Your task to perform on an android device: Search for Italian restaurants on Maps Image 0: 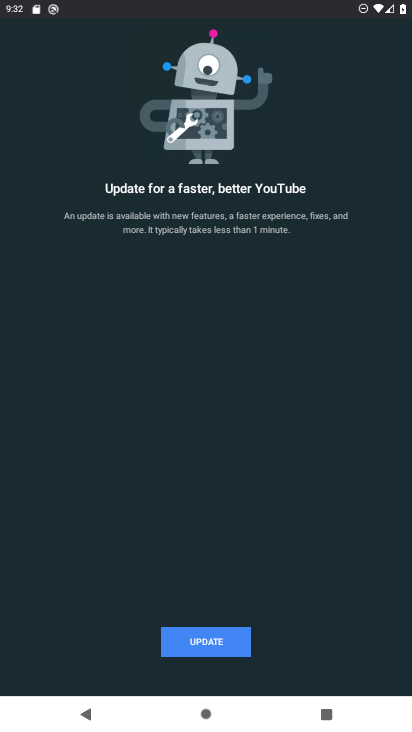
Step 0: press home button
Your task to perform on an android device: Search for Italian restaurants on Maps Image 1: 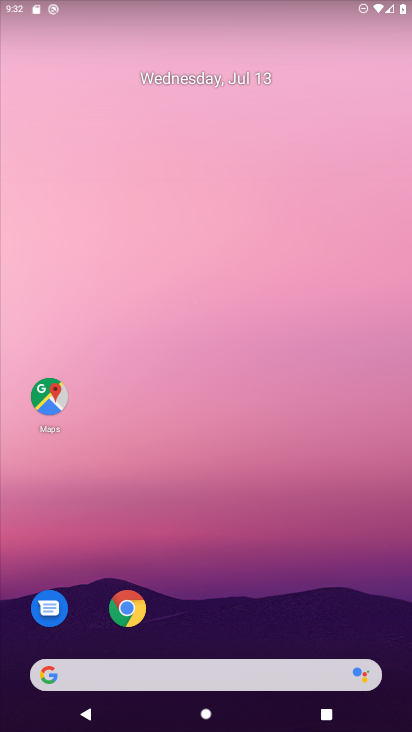
Step 1: drag from (239, 627) to (333, 90)
Your task to perform on an android device: Search for Italian restaurants on Maps Image 2: 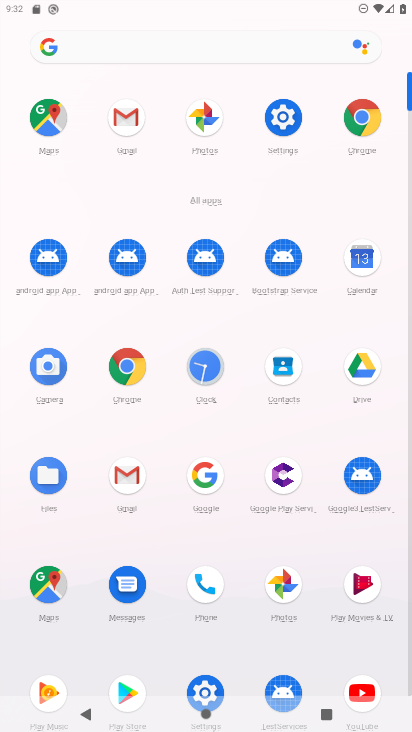
Step 2: click (57, 589)
Your task to perform on an android device: Search for Italian restaurants on Maps Image 3: 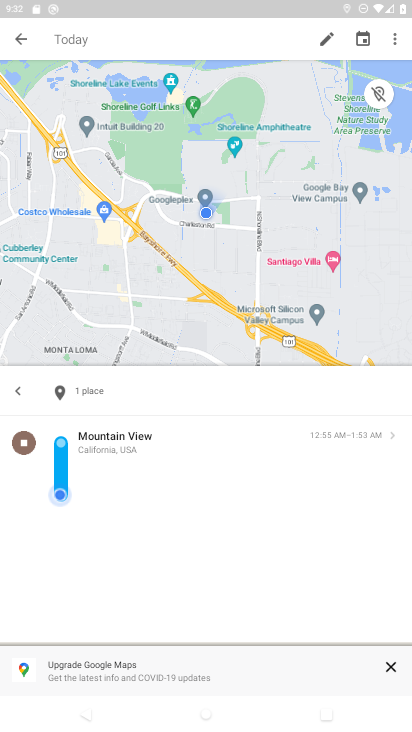
Step 3: press back button
Your task to perform on an android device: Search for Italian restaurants on Maps Image 4: 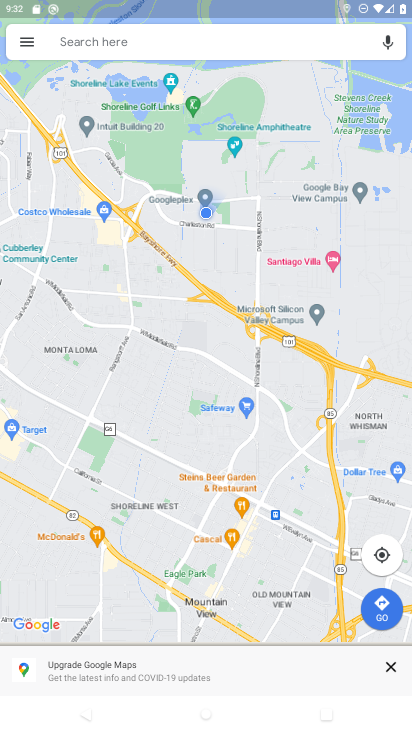
Step 4: click (328, 43)
Your task to perform on an android device: Search for Italian restaurants on Maps Image 5: 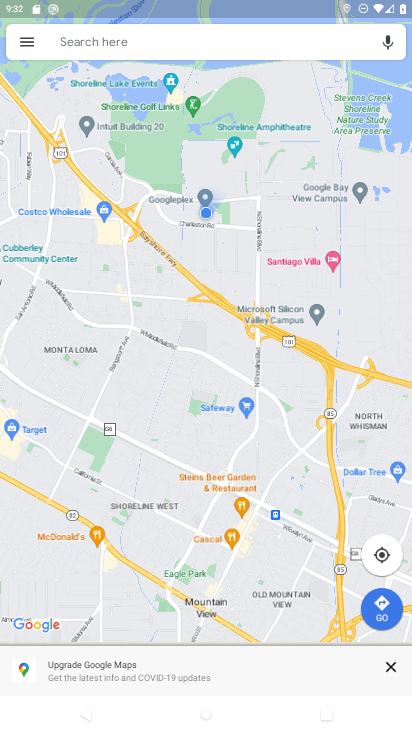
Step 5: click (328, 43)
Your task to perform on an android device: Search for Italian restaurants on Maps Image 6: 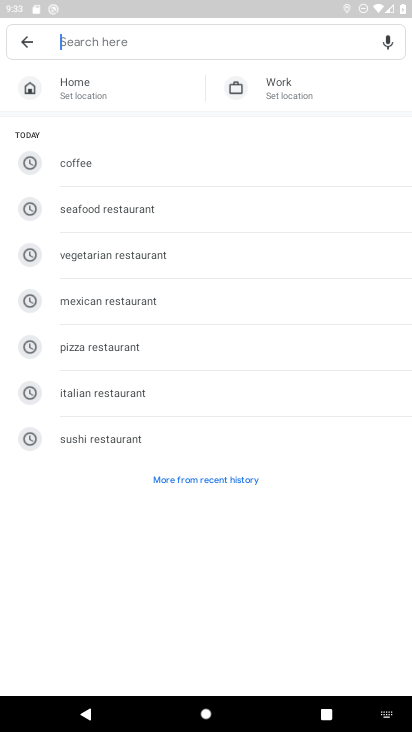
Step 6: click (99, 396)
Your task to perform on an android device: Search for Italian restaurants on Maps Image 7: 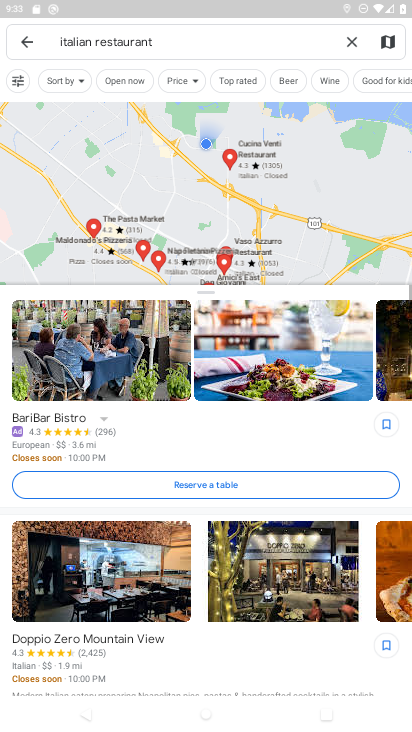
Step 7: task complete